Your task to perform on an android device: turn on the 24-hour format for clock Image 0: 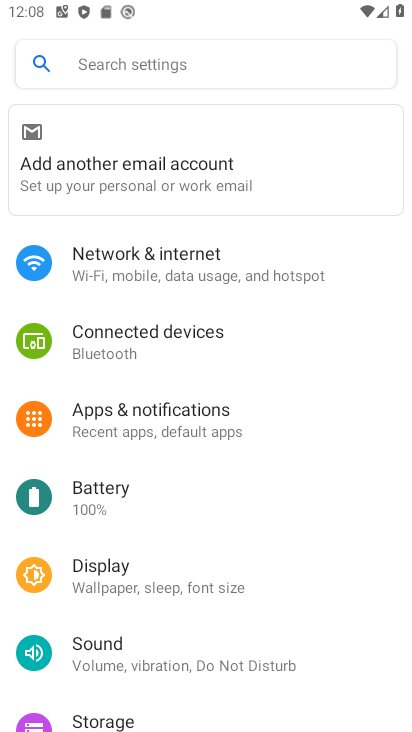
Step 0: press home button
Your task to perform on an android device: turn on the 24-hour format for clock Image 1: 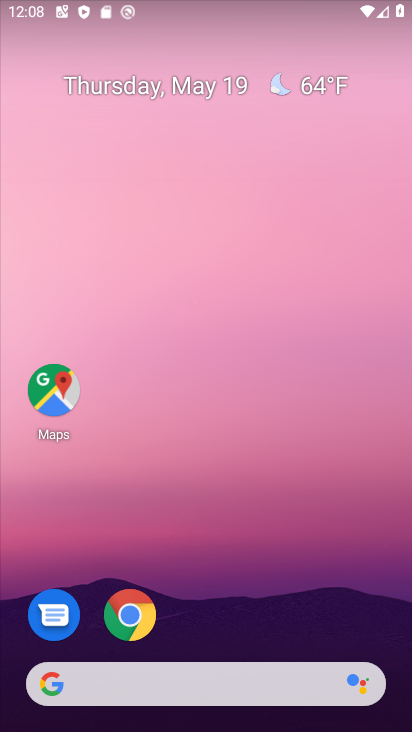
Step 1: drag from (248, 588) to (398, 203)
Your task to perform on an android device: turn on the 24-hour format for clock Image 2: 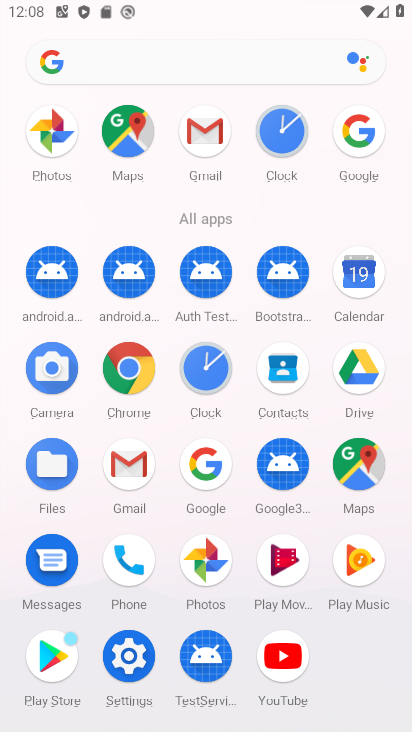
Step 2: drag from (260, 393) to (276, 287)
Your task to perform on an android device: turn on the 24-hour format for clock Image 3: 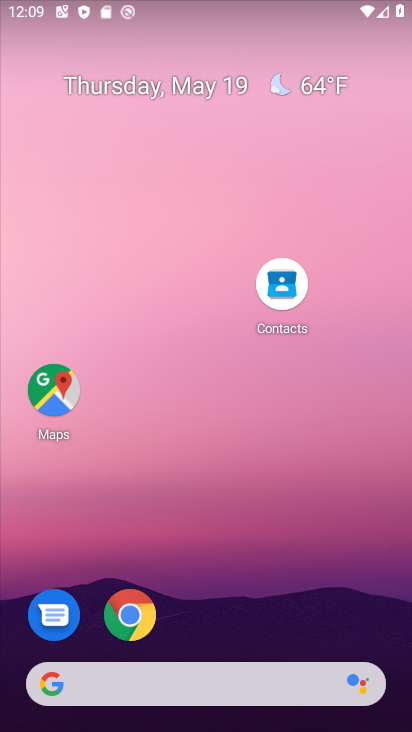
Step 3: drag from (256, 557) to (241, 132)
Your task to perform on an android device: turn on the 24-hour format for clock Image 4: 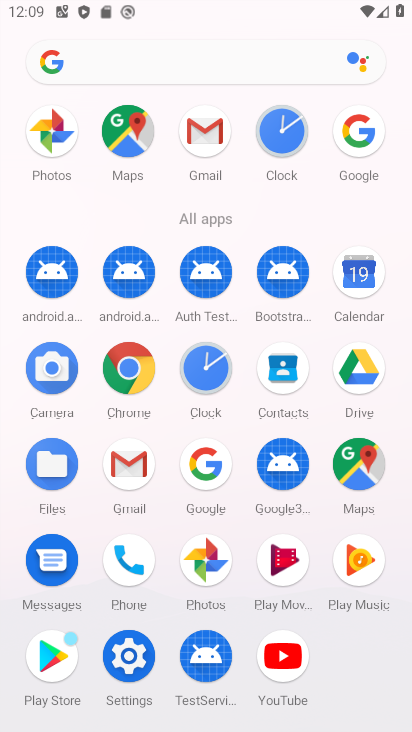
Step 4: click (331, 519)
Your task to perform on an android device: turn on the 24-hour format for clock Image 5: 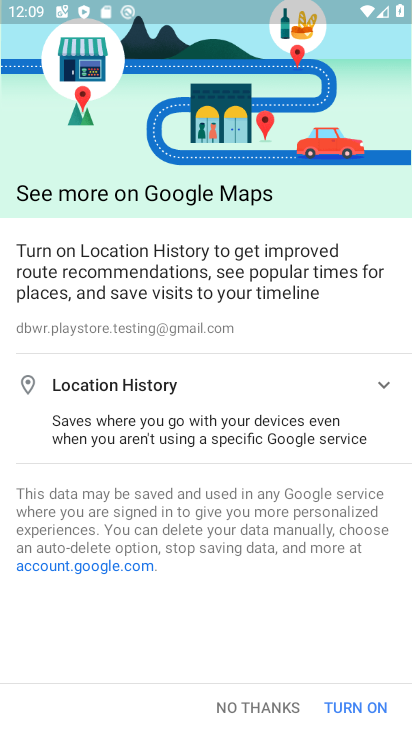
Step 5: press home button
Your task to perform on an android device: turn on the 24-hour format for clock Image 6: 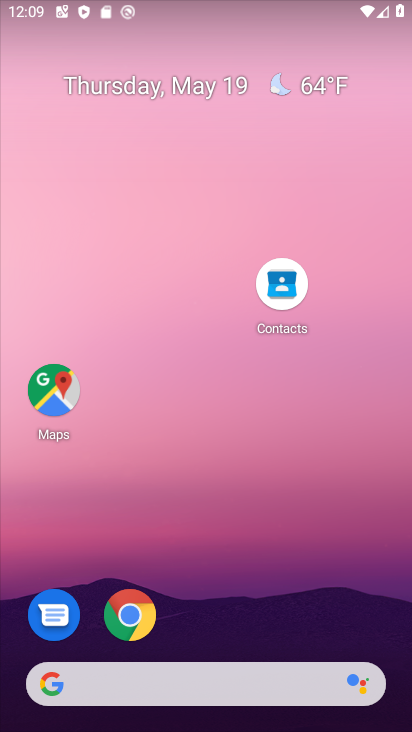
Step 6: drag from (220, 603) to (232, 329)
Your task to perform on an android device: turn on the 24-hour format for clock Image 7: 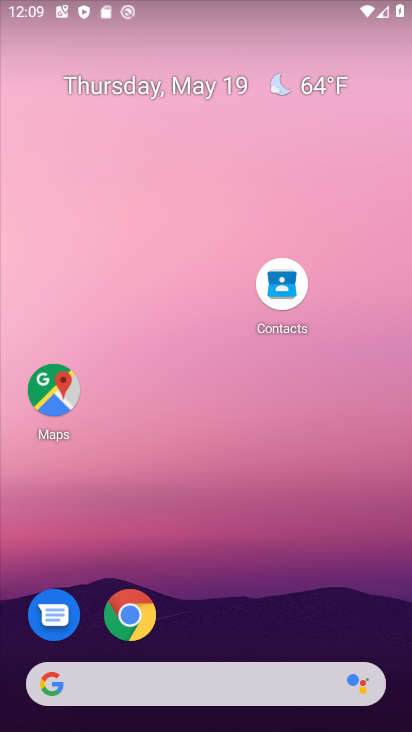
Step 7: drag from (242, 586) to (254, 169)
Your task to perform on an android device: turn on the 24-hour format for clock Image 8: 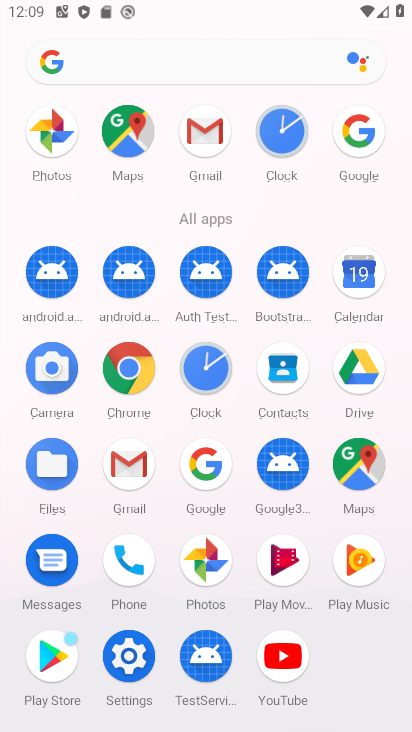
Step 8: click (281, 148)
Your task to perform on an android device: turn on the 24-hour format for clock Image 9: 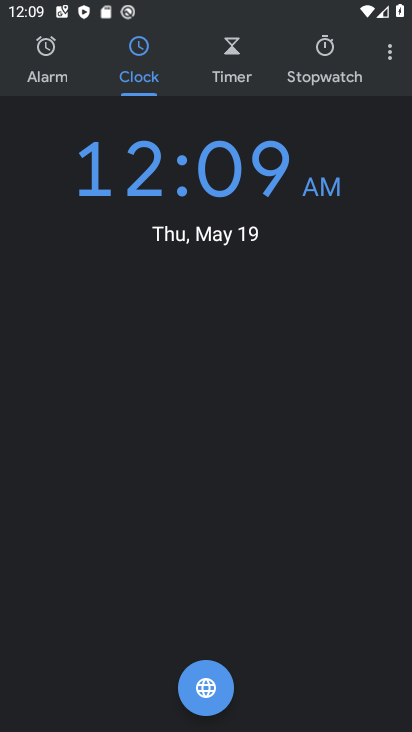
Step 9: click (383, 53)
Your task to perform on an android device: turn on the 24-hour format for clock Image 10: 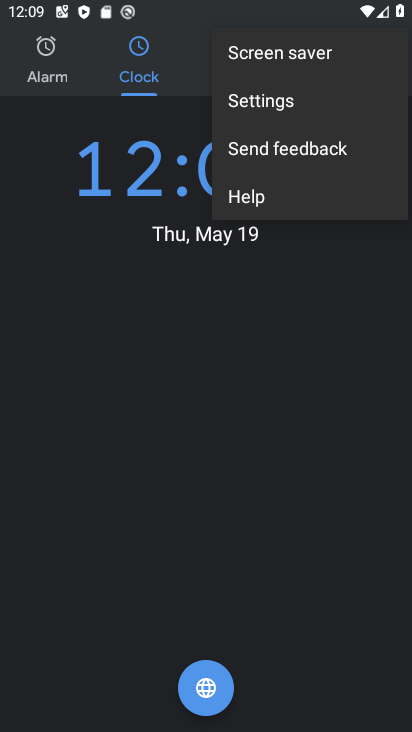
Step 10: click (249, 105)
Your task to perform on an android device: turn on the 24-hour format for clock Image 11: 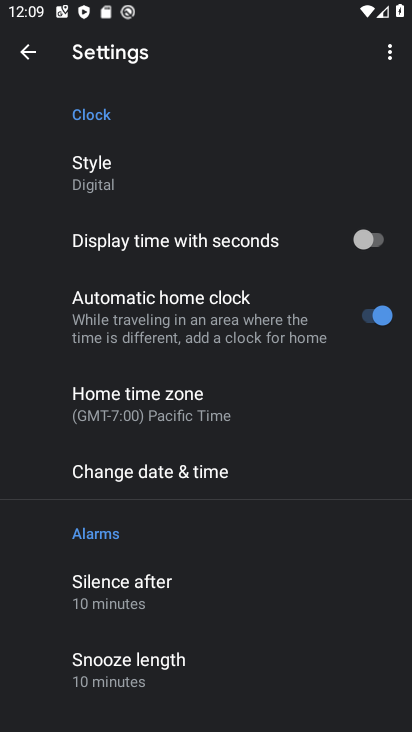
Step 11: click (260, 480)
Your task to perform on an android device: turn on the 24-hour format for clock Image 12: 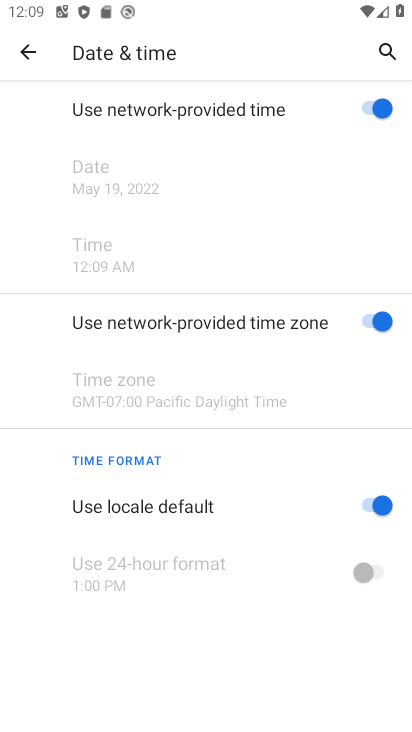
Step 12: task complete